Your task to perform on an android device: delete location history Image 0: 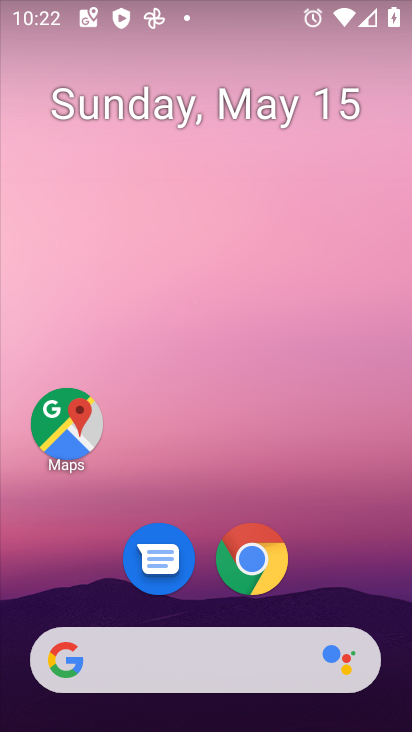
Step 0: drag from (360, 569) to (359, 100)
Your task to perform on an android device: delete location history Image 1: 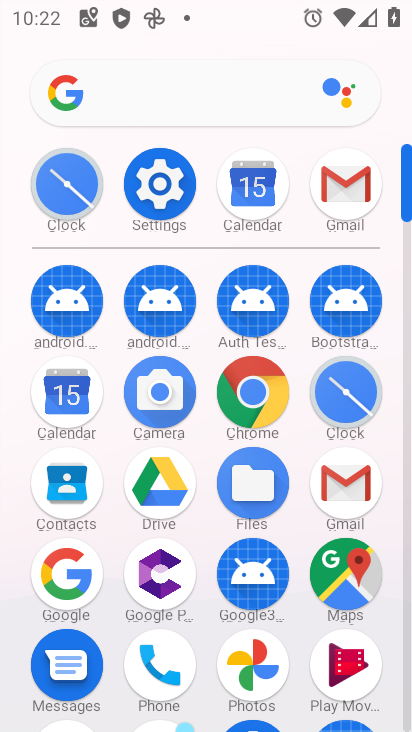
Step 1: click (153, 229)
Your task to perform on an android device: delete location history Image 2: 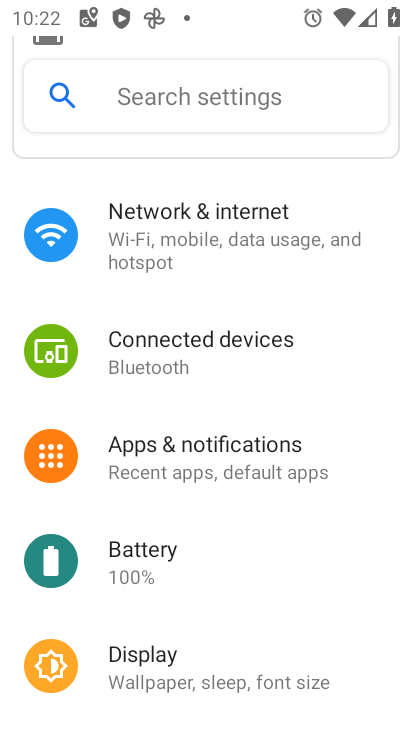
Step 2: drag from (150, 658) to (205, 370)
Your task to perform on an android device: delete location history Image 3: 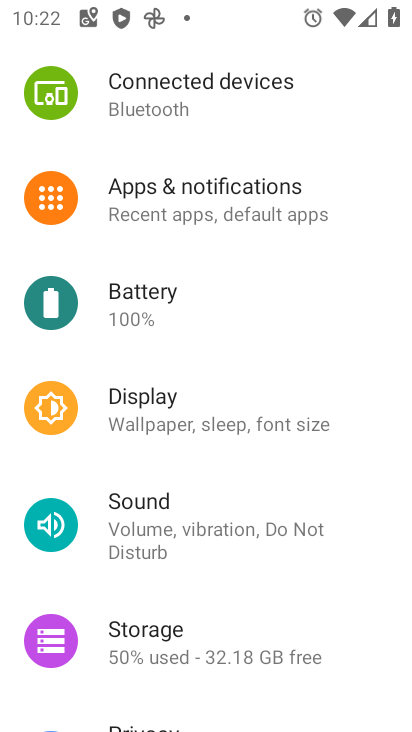
Step 3: drag from (222, 656) to (235, 333)
Your task to perform on an android device: delete location history Image 4: 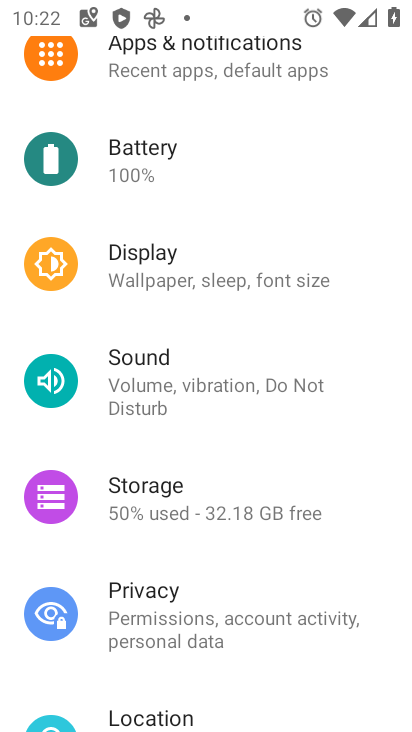
Step 4: click (213, 705)
Your task to perform on an android device: delete location history Image 5: 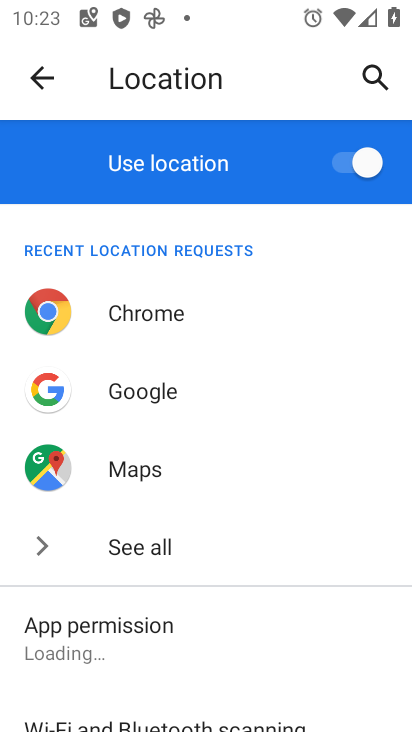
Step 5: drag from (256, 647) to (346, 333)
Your task to perform on an android device: delete location history Image 6: 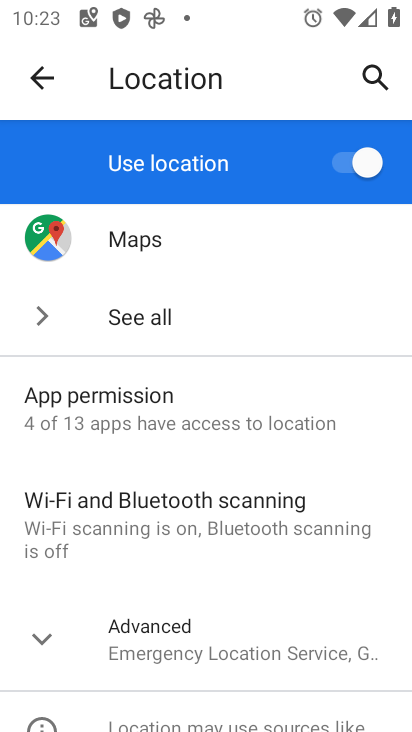
Step 6: drag from (238, 609) to (276, 312)
Your task to perform on an android device: delete location history Image 7: 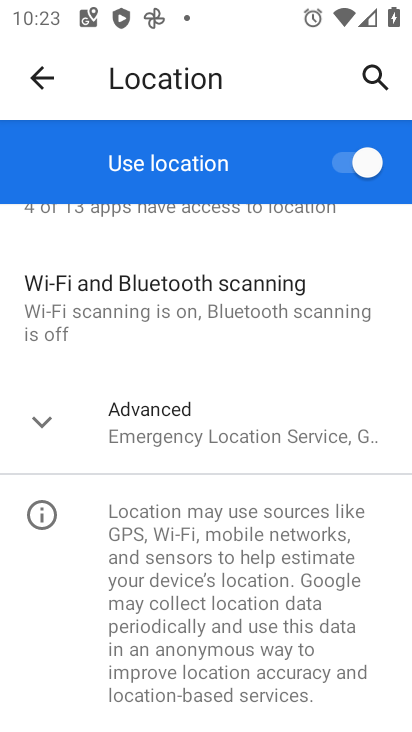
Step 7: click (254, 428)
Your task to perform on an android device: delete location history Image 8: 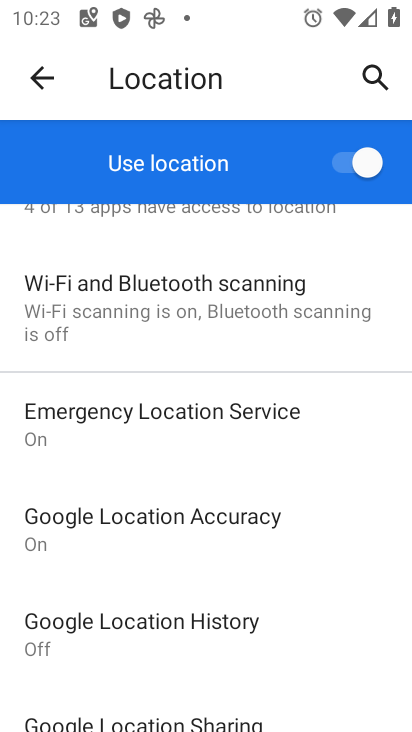
Step 8: drag from (173, 614) to (213, 463)
Your task to perform on an android device: delete location history Image 9: 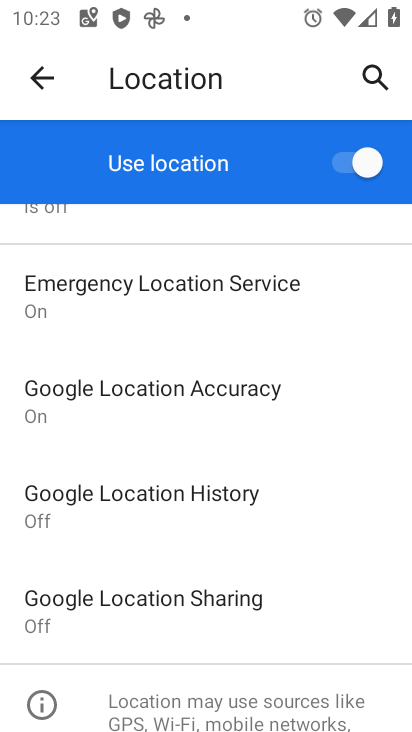
Step 9: click (208, 498)
Your task to perform on an android device: delete location history Image 10: 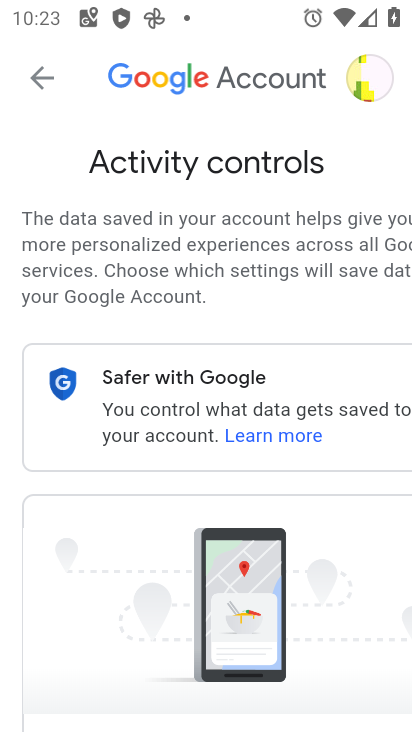
Step 10: drag from (264, 416) to (275, 224)
Your task to perform on an android device: delete location history Image 11: 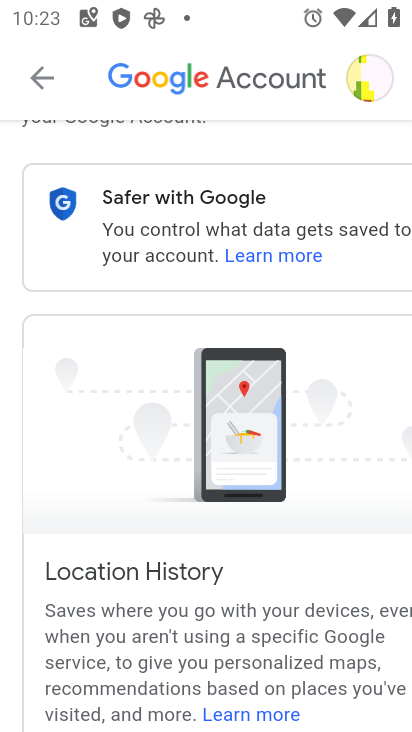
Step 11: drag from (252, 509) to (265, 312)
Your task to perform on an android device: delete location history Image 12: 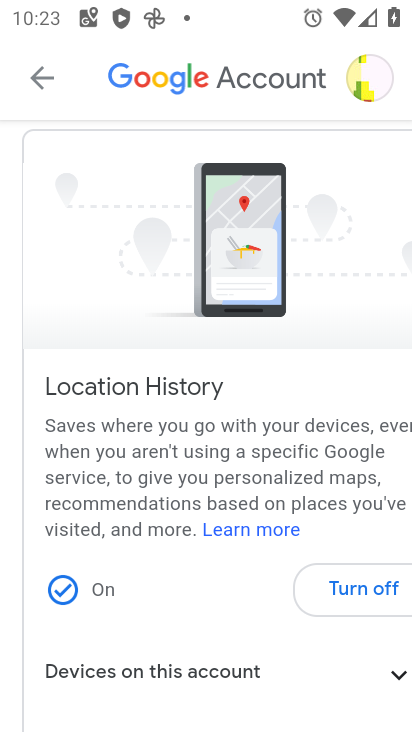
Step 12: drag from (208, 581) to (236, 329)
Your task to perform on an android device: delete location history Image 13: 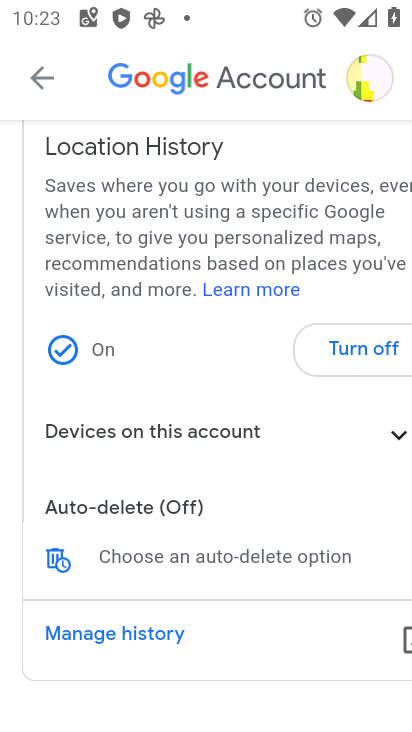
Step 13: click (258, 550)
Your task to perform on an android device: delete location history Image 14: 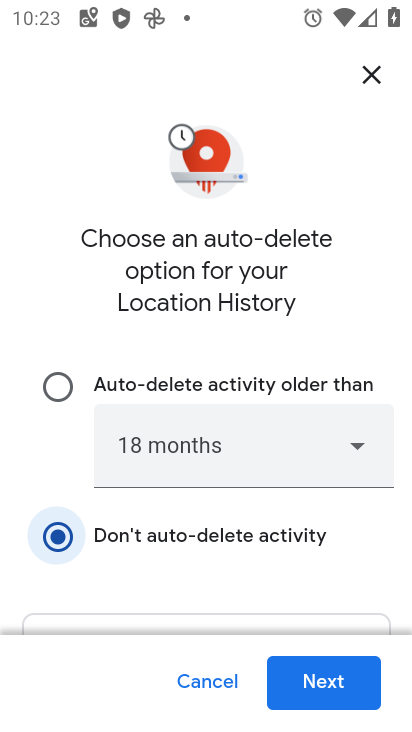
Step 14: click (309, 671)
Your task to perform on an android device: delete location history Image 15: 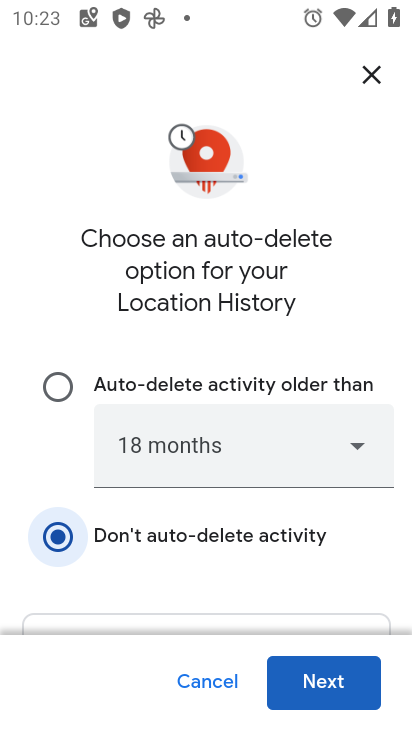
Step 15: click (309, 671)
Your task to perform on an android device: delete location history Image 16: 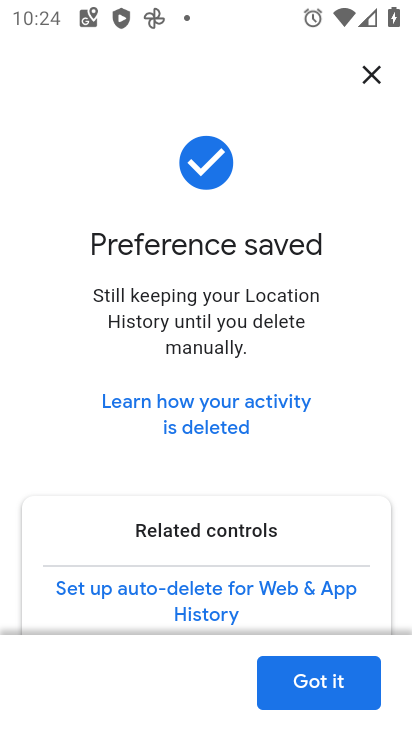
Step 16: click (325, 678)
Your task to perform on an android device: delete location history Image 17: 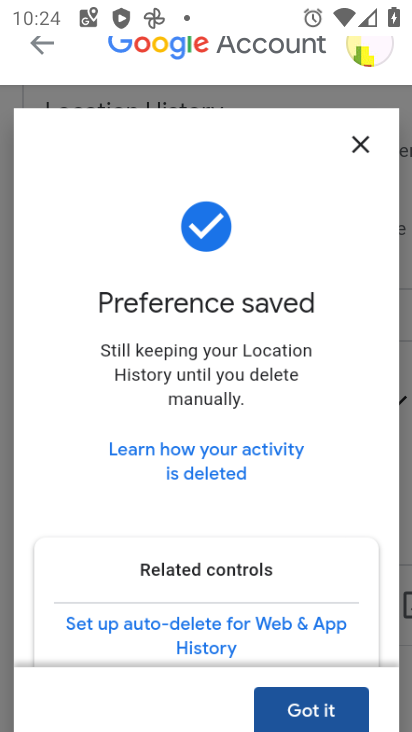
Step 17: task complete